Your task to perform on an android device: toggle javascript in the chrome app Image 0: 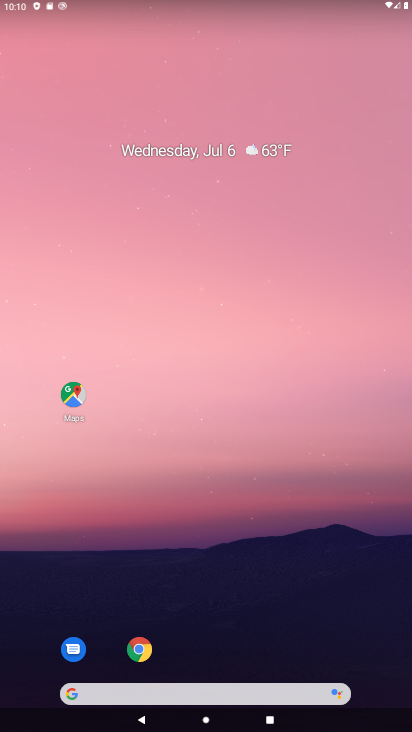
Step 0: click (145, 651)
Your task to perform on an android device: toggle javascript in the chrome app Image 1: 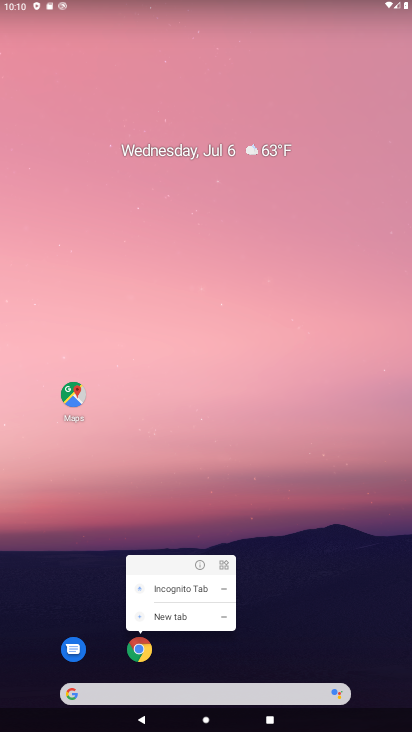
Step 1: click (144, 652)
Your task to perform on an android device: toggle javascript in the chrome app Image 2: 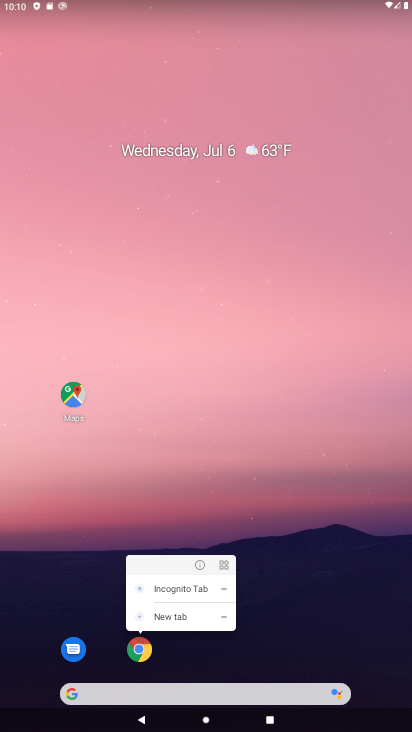
Step 2: click (145, 639)
Your task to perform on an android device: toggle javascript in the chrome app Image 3: 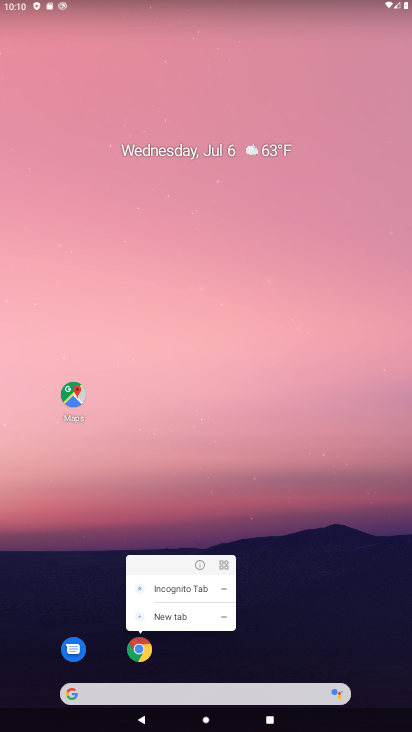
Step 3: click (134, 649)
Your task to perform on an android device: toggle javascript in the chrome app Image 4: 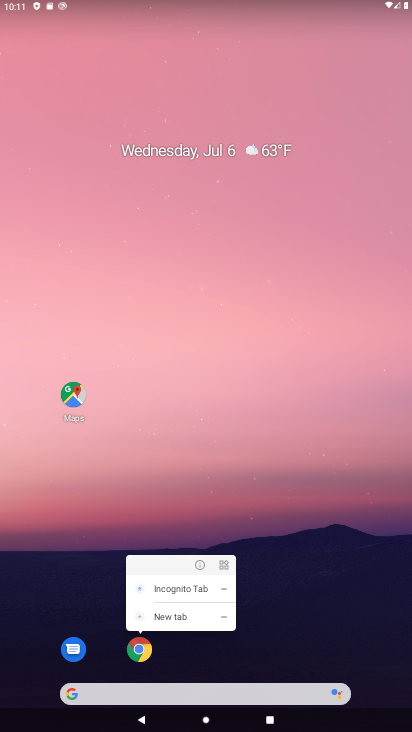
Step 4: click (134, 649)
Your task to perform on an android device: toggle javascript in the chrome app Image 5: 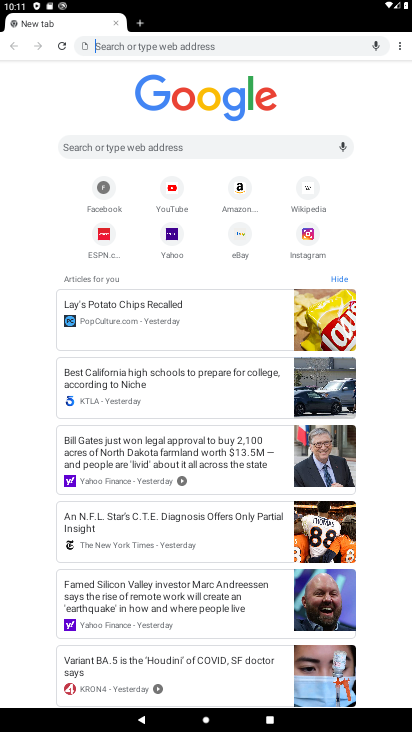
Step 5: drag from (397, 47) to (289, 212)
Your task to perform on an android device: toggle javascript in the chrome app Image 6: 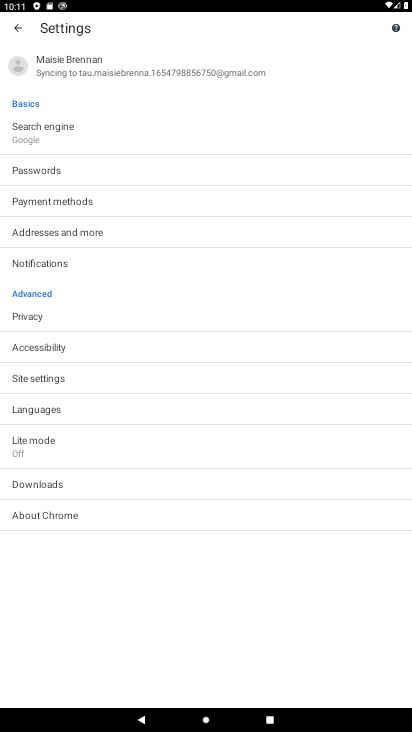
Step 6: click (27, 383)
Your task to perform on an android device: toggle javascript in the chrome app Image 7: 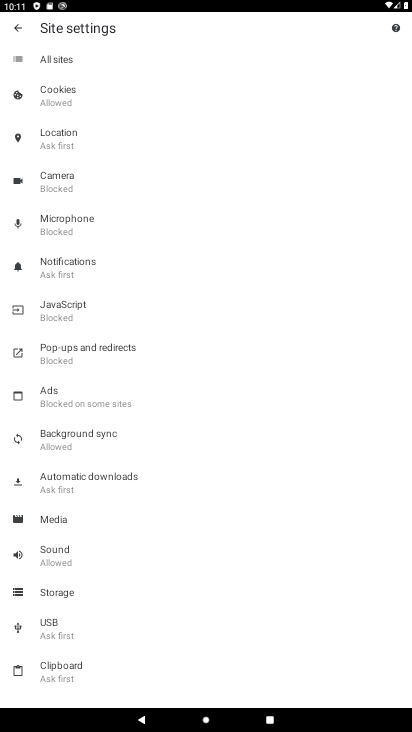
Step 7: click (57, 310)
Your task to perform on an android device: toggle javascript in the chrome app Image 8: 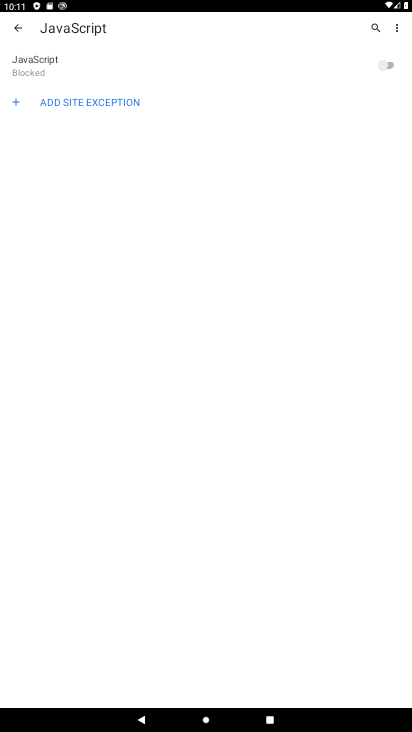
Step 8: click (384, 66)
Your task to perform on an android device: toggle javascript in the chrome app Image 9: 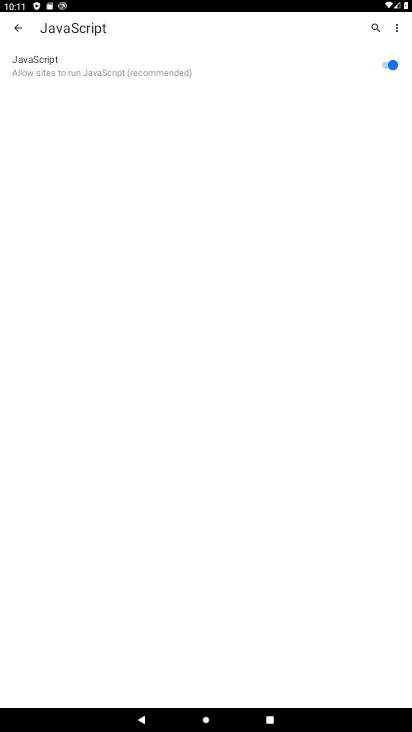
Step 9: task complete